Your task to perform on an android device: What is the recent news? Image 0: 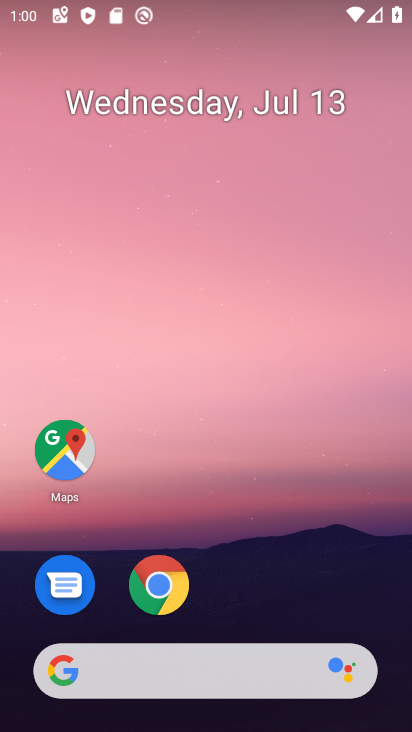
Step 0: click (182, 672)
Your task to perform on an android device: What is the recent news? Image 1: 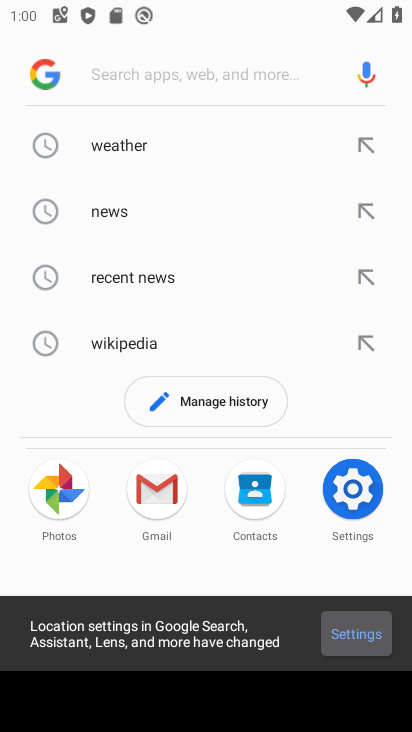
Step 1: click (149, 272)
Your task to perform on an android device: What is the recent news? Image 2: 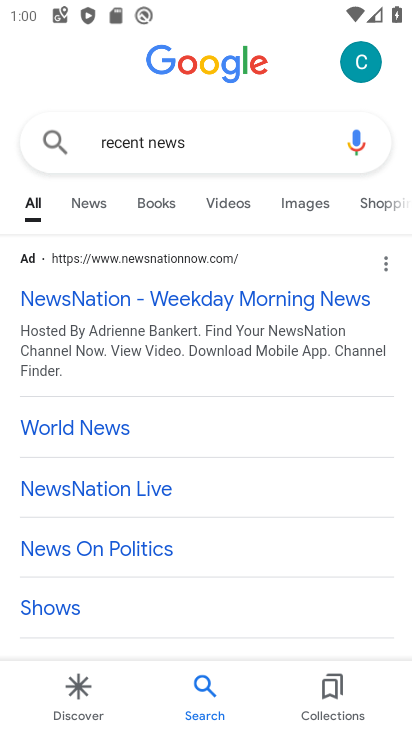
Step 2: click (86, 200)
Your task to perform on an android device: What is the recent news? Image 3: 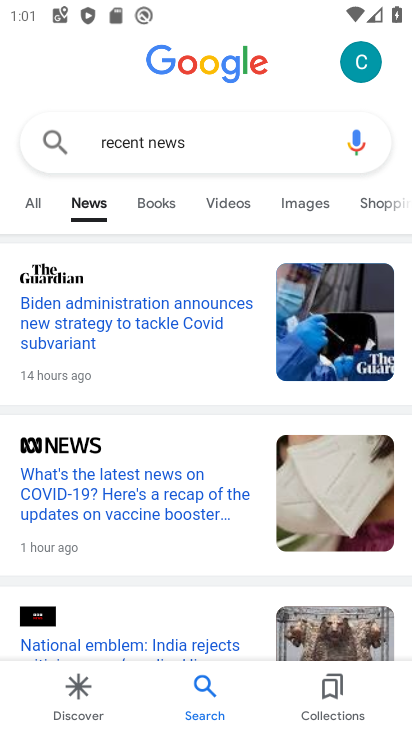
Step 3: task complete